Your task to perform on an android device: What is the news today? Image 0: 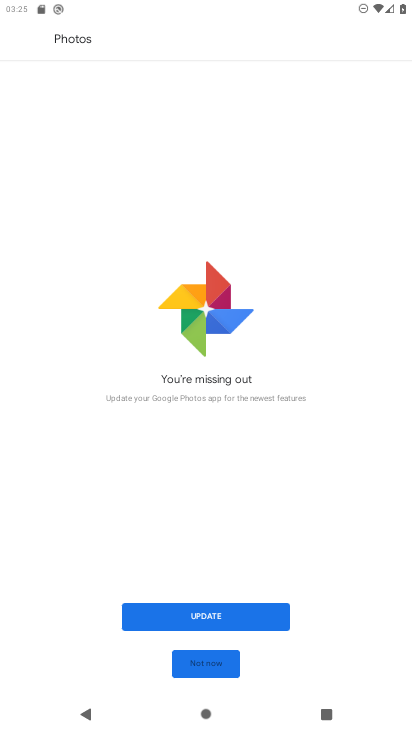
Step 0: press home button
Your task to perform on an android device: What is the news today? Image 1: 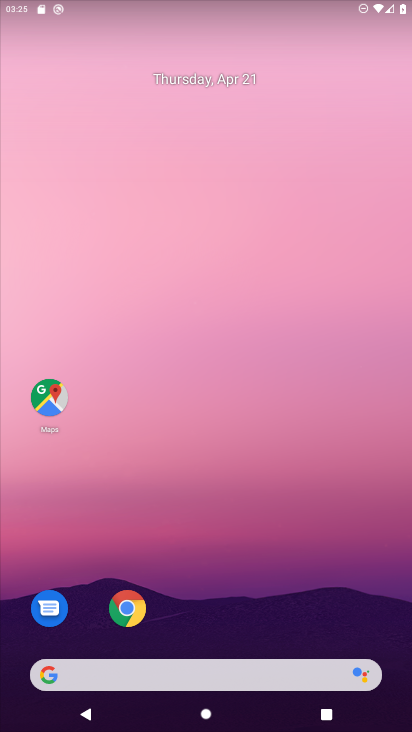
Step 1: drag from (274, 666) to (231, 200)
Your task to perform on an android device: What is the news today? Image 2: 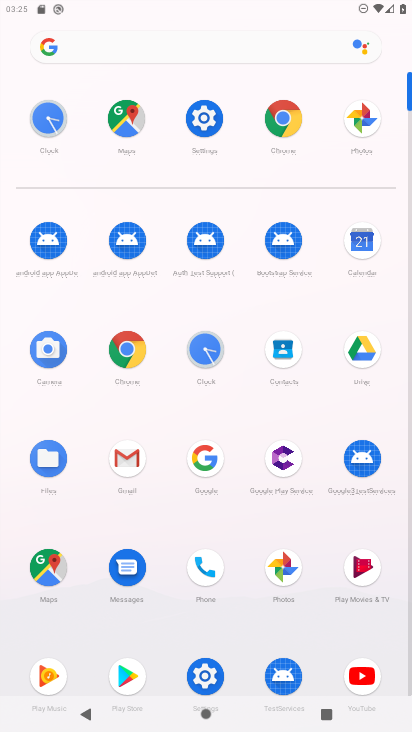
Step 2: click (281, 120)
Your task to perform on an android device: What is the news today? Image 3: 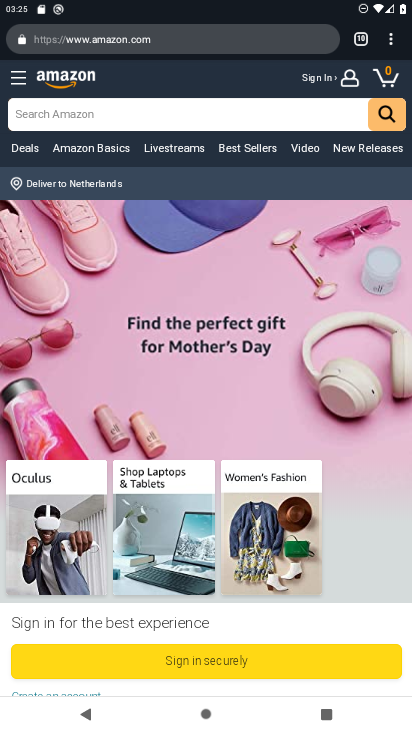
Step 3: click (390, 33)
Your task to perform on an android device: What is the news today? Image 4: 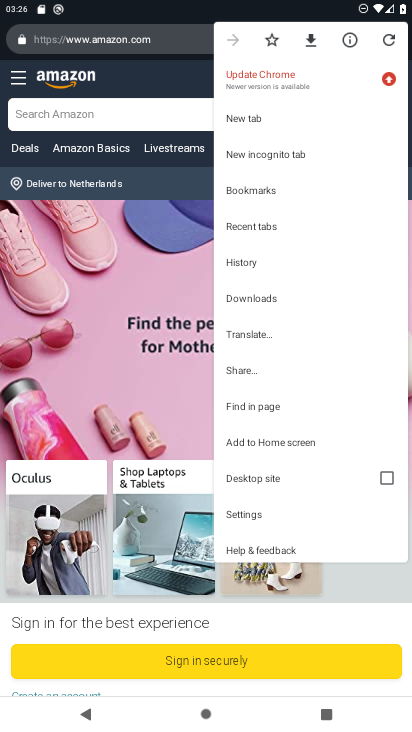
Step 4: click (300, 120)
Your task to perform on an android device: What is the news today? Image 5: 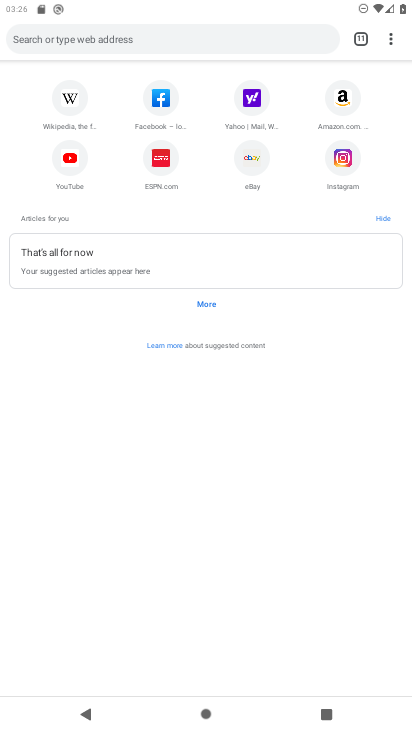
Step 5: click (151, 37)
Your task to perform on an android device: What is the news today? Image 6: 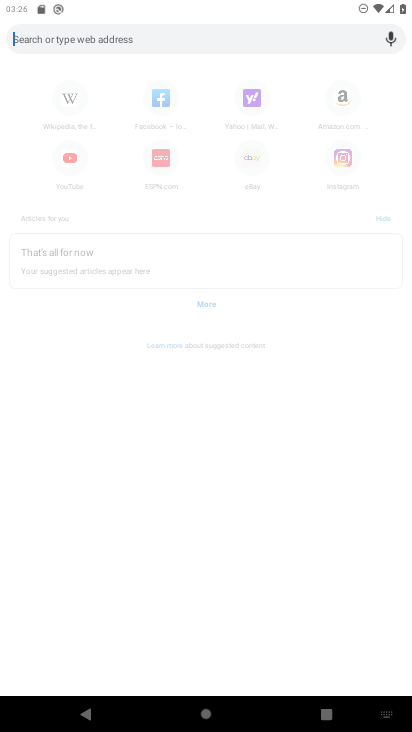
Step 6: type " news today?"
Your task to perform on an android device: What is the news today? Image 7: 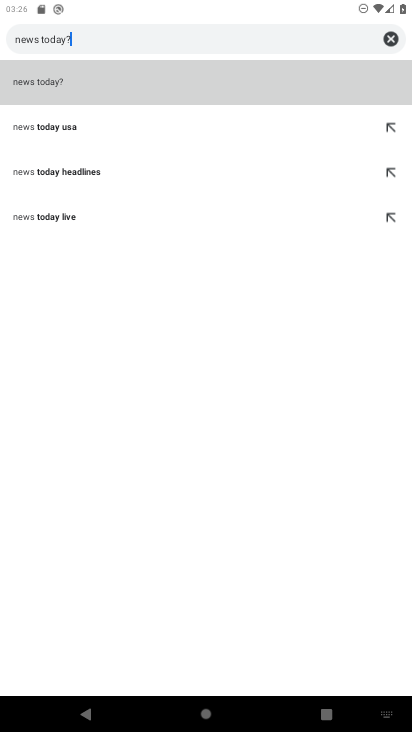
Step 7: drag from (136, 128) to (138, 77)
Your task to perform on an android device: What is the news today? Image 8: 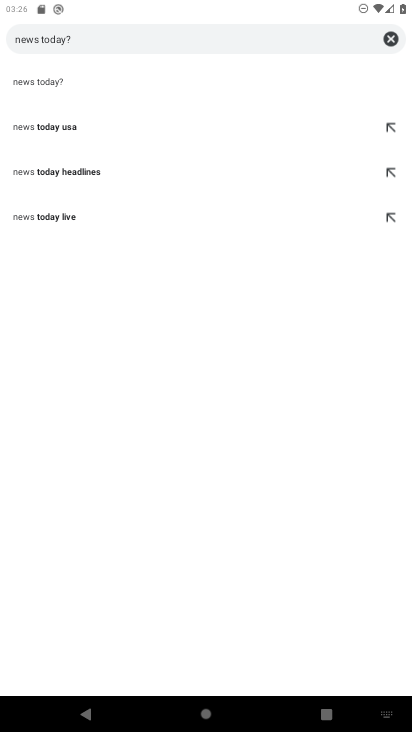
Step 8: click (138, 76)
Your task to perform on an android device: What is the news today? Image 9: 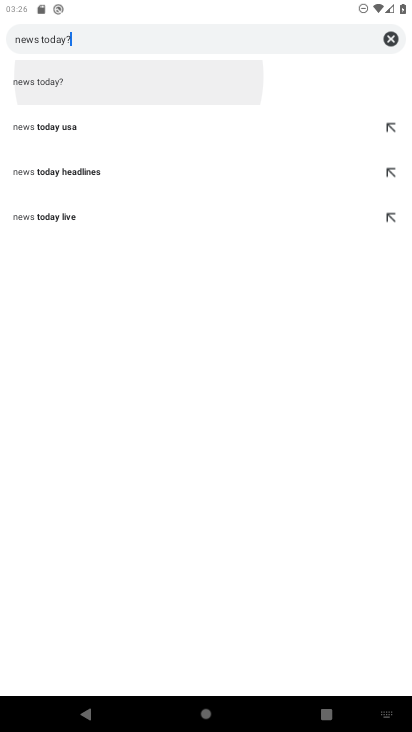
Step 9: click (50, 72)
Your task to perform on an android device: What is the news today? Image 10: 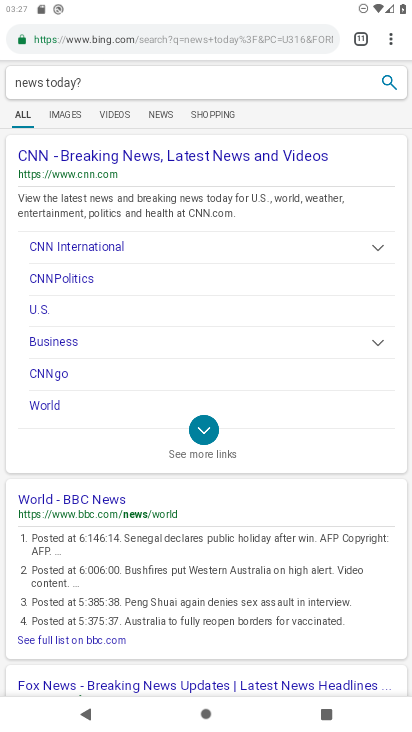
Step 10: task complete